Your task to perform on an android device: Open Youtube and go to the subscriptions tab Image 0: 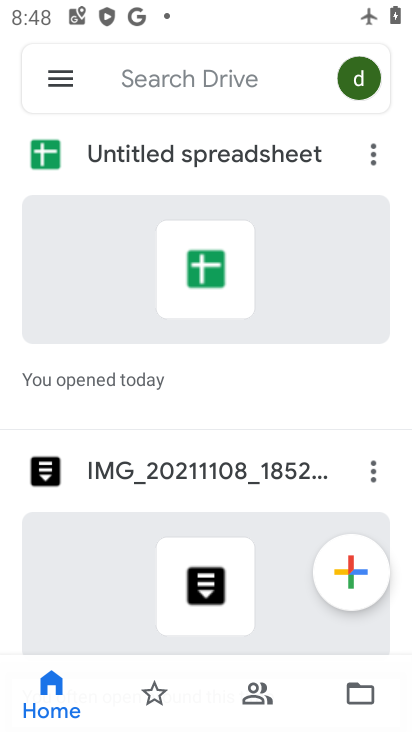
Step 0: press home button
Your task to perform on an android device: Open Youtube and go to the subscriptions tab Image 1: 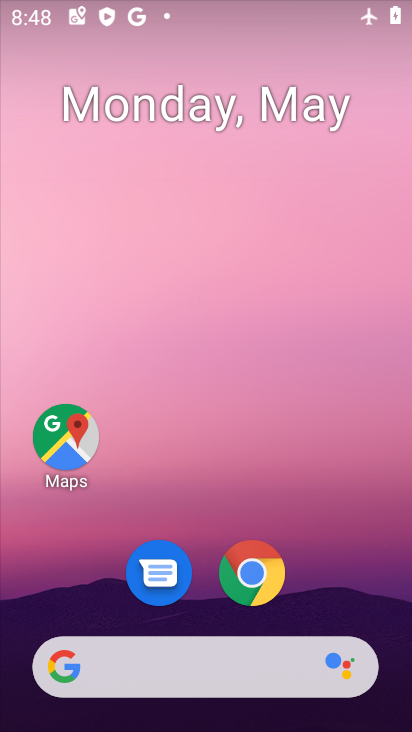
Step 1: drag from (178, 613) to (159, 175)
Your task to perform on an android device: Open Youtube and go to the subscriptions tab Image 2: 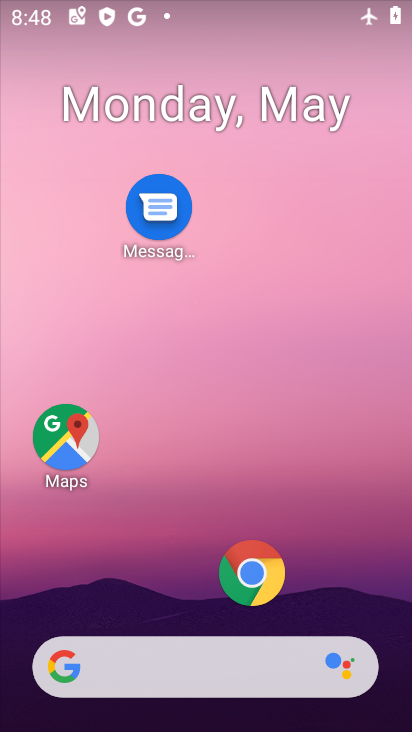
Step 2: drag from (186, 623) to (251, 164)
Your task to perform on an android device: Open Youtube and go to the subscriptions tab Image 3: 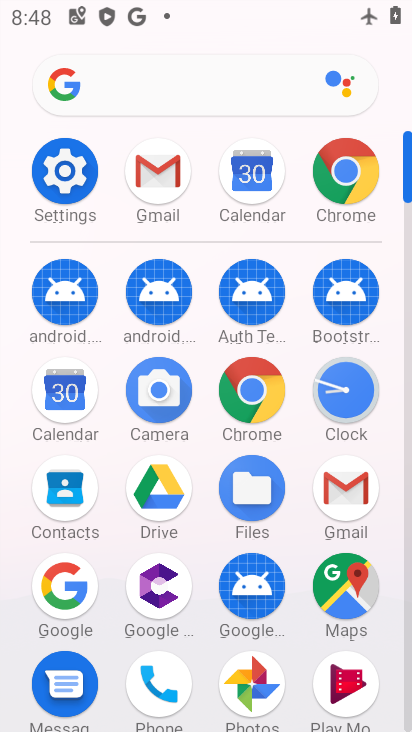
Step 3: drag from (229, 581) to (314, 254)
Your task to perform on an android device: Open Youtube and go to the subscriptions tab Image 4: 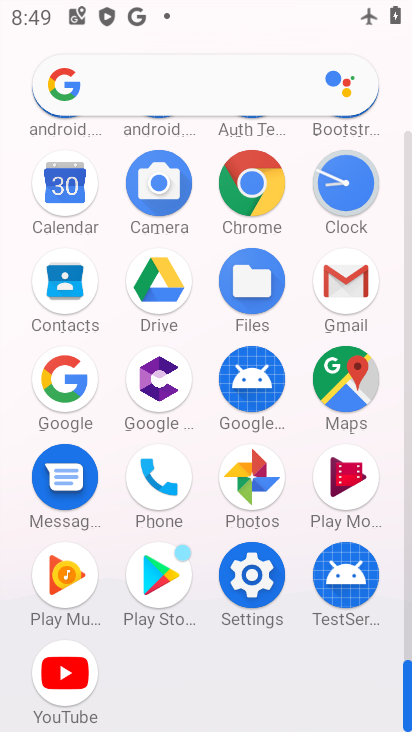
Step 4: click (84, 689)
Your task to perform on an android device: Open Youtube and go to the subscriptions tab Image 5: 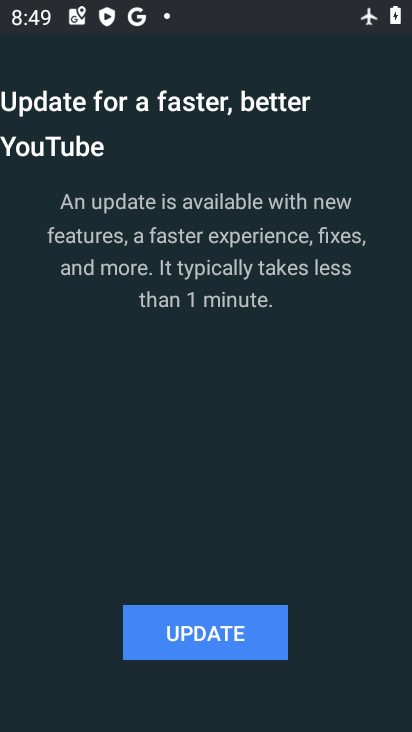
Step 5: task complete